Your task to perform on an android device: turn notification dots off Image 0: 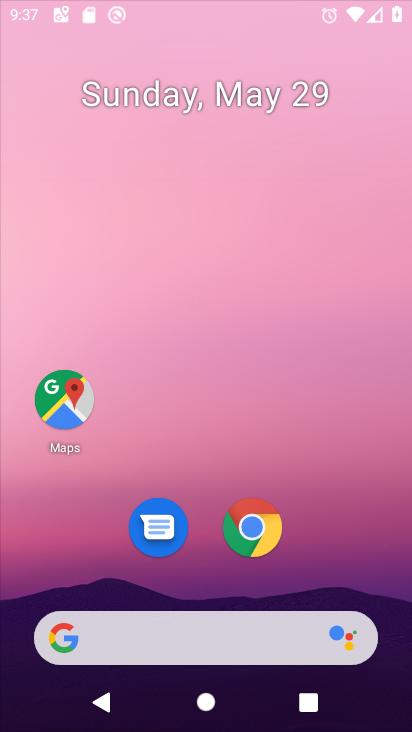
Step 0: press home button
Your task to perform on an android device: turn notification dots off Image 1: 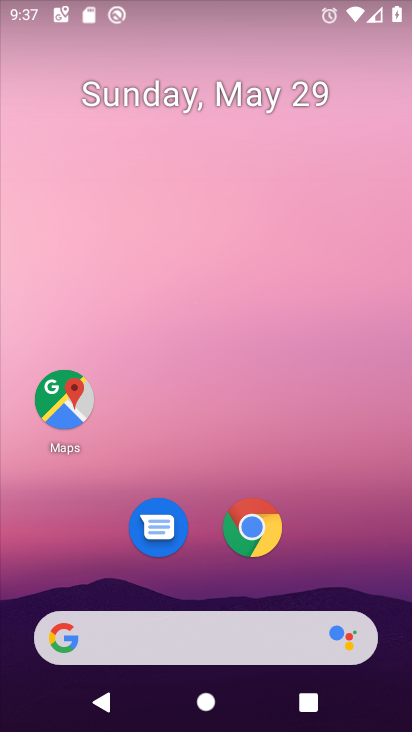
Step 1: drag from (206, 587) to (198, 22)
Your task to perform on an android device: turn notification dots off Image 2: 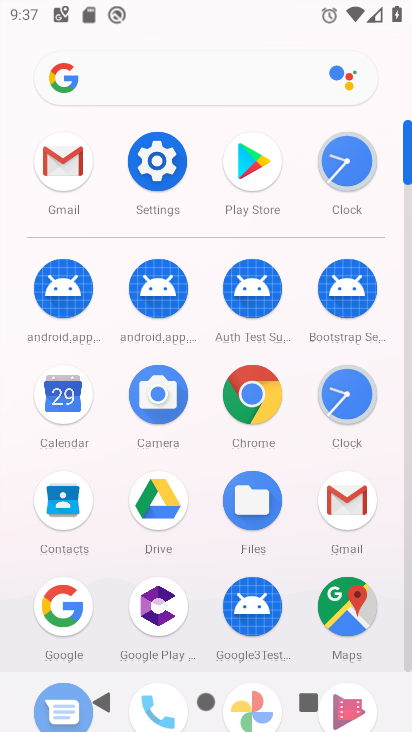
Step 2: click (155, 157)
Your task to perform on an android device: turn notification dots off Image 3: 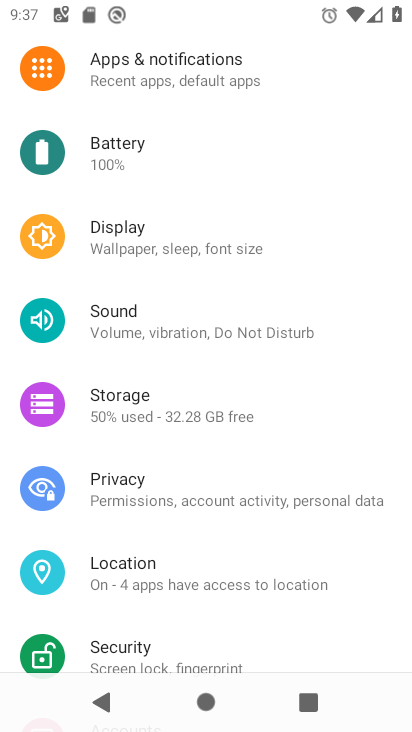
Step 3: click (263, 63)
Your task to perform on an android device: turn notification dots off Image 4: 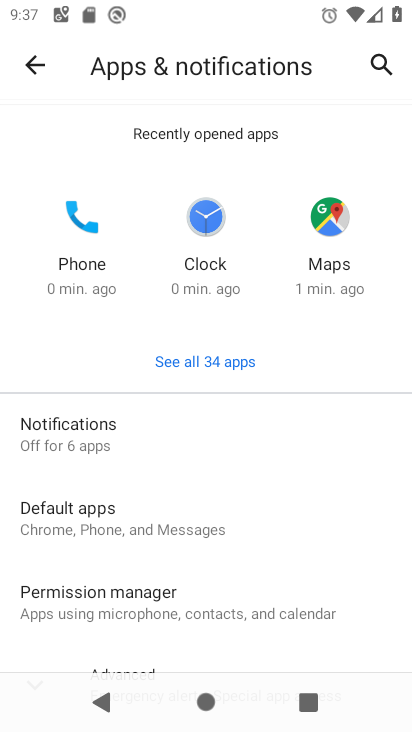
Step 4: click (132, 429)
Your task to perform on an android device: turn notification dots off Image 5: 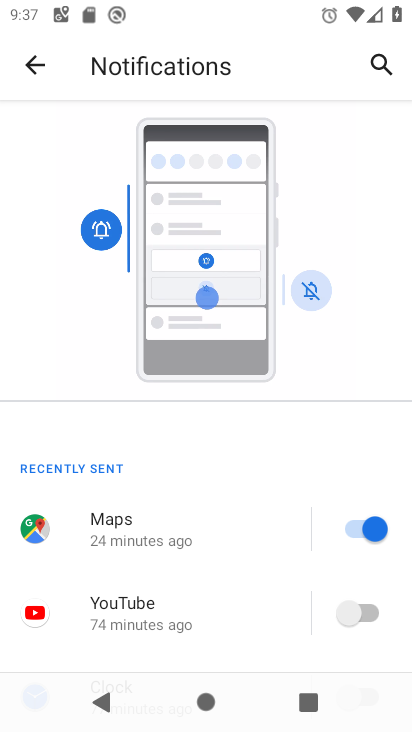
Step 5: drag from (217, 643) to (189, 223)
Your task to perform on an android device: turn notification dots off Image 6: 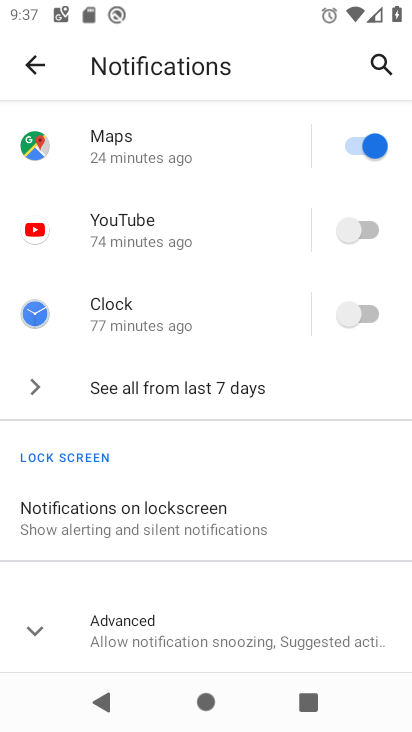
Step 6: click (39, 619)
Your task to perform on an android device: turn notification dots off Image 7: 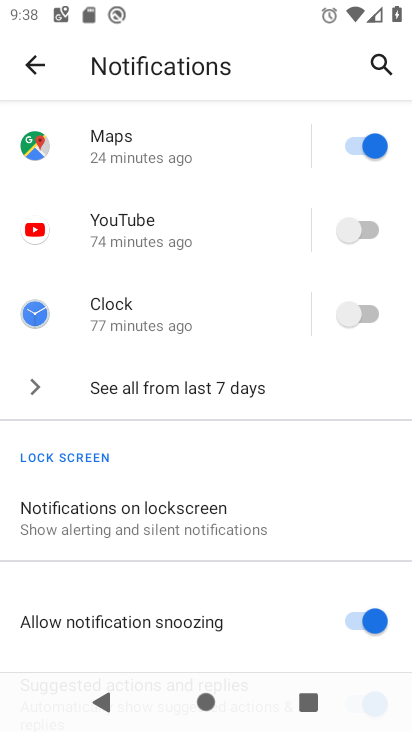
Step 7: drag from (182, 585) to (215, 90)
Your task to perform on an android device: turn notification dots off Image 8: 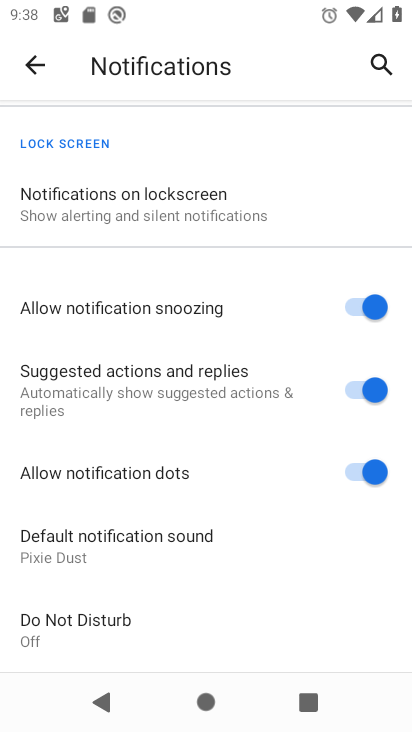
Step 8: click (356, 470)
Your task to perform on an android device: turn notification dots off Image 9: 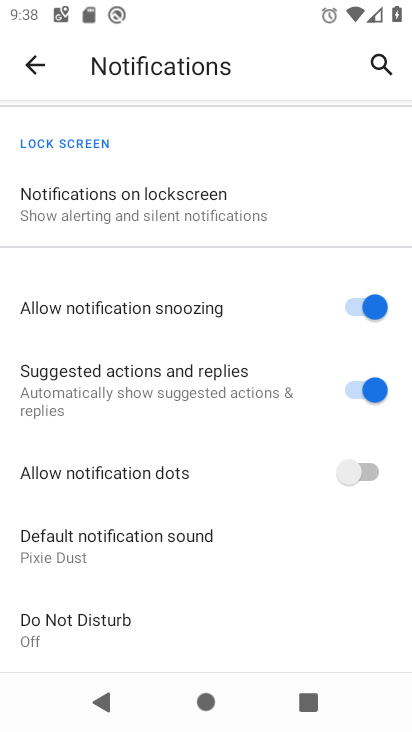
Step 9: task complete